Your task to perform on an android device: set an alarm Image 0: 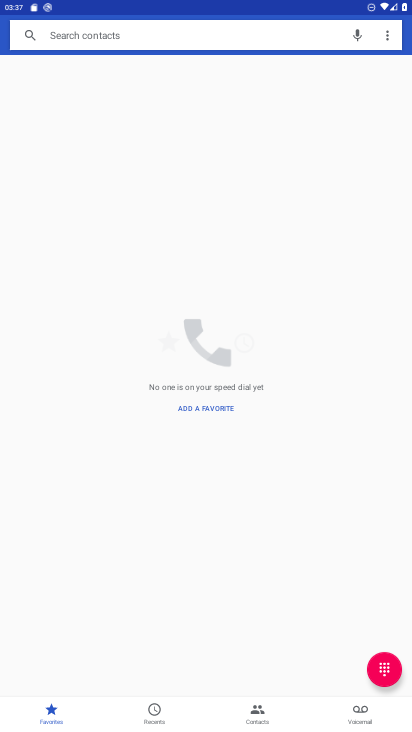
Step 0: press home button
Your task to perform on an android device: set an alarm Image 1: 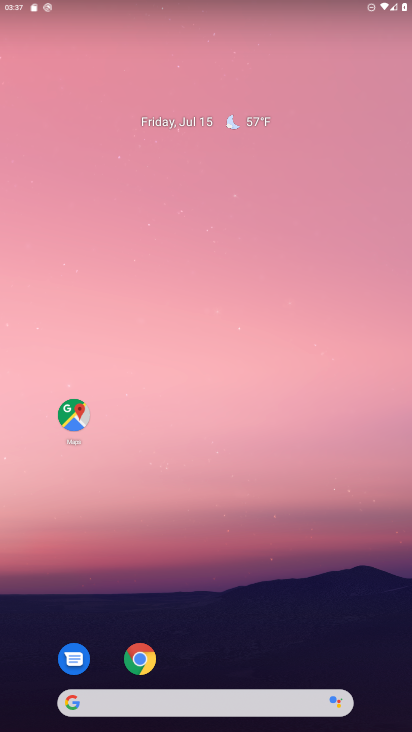
Step 1: drag from (233, 680) to (216, 21)
Your task to perform on an android device: set an alarm Image 2: 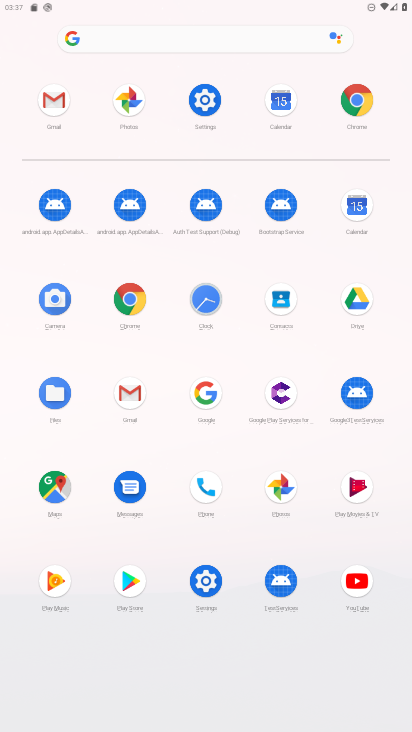
Step 2: click (207, 307)
Your task to perform on an android device: set an alarm Image 3: 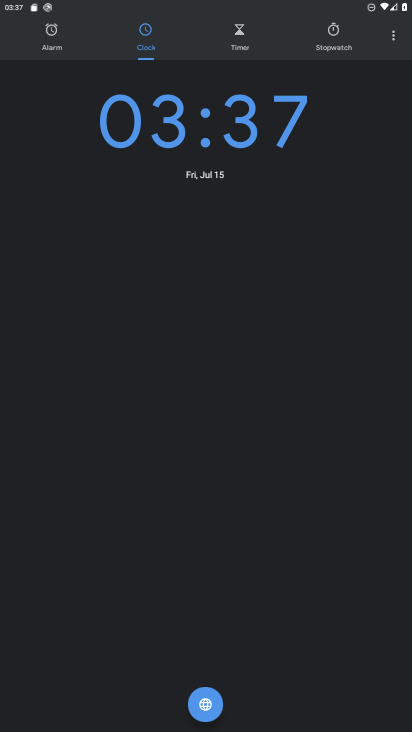
Step 3: click (64, 40)
Your task to perform on an android device: set an alarm Image 4: 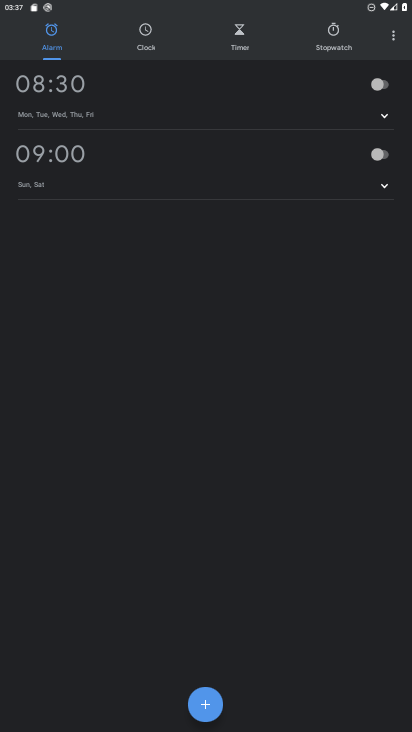
Step 4: click (401, 154)
Your task to perform on an android device: set an alarm Image 5: 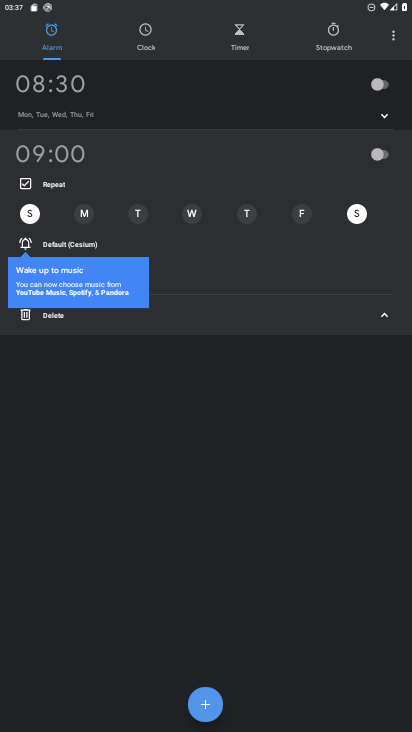
Step 5: click (131, 216)
Your task to perform on an android device: set an alarm Image 6: 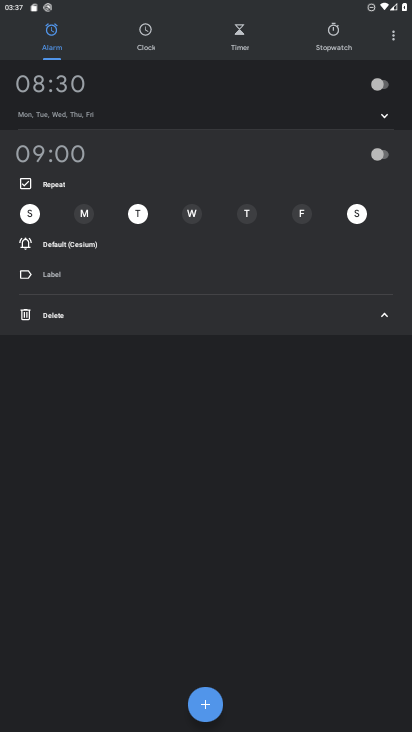
Step 6: click (198, 216)
Your task to perform on an android device: set an alarm Image 7: 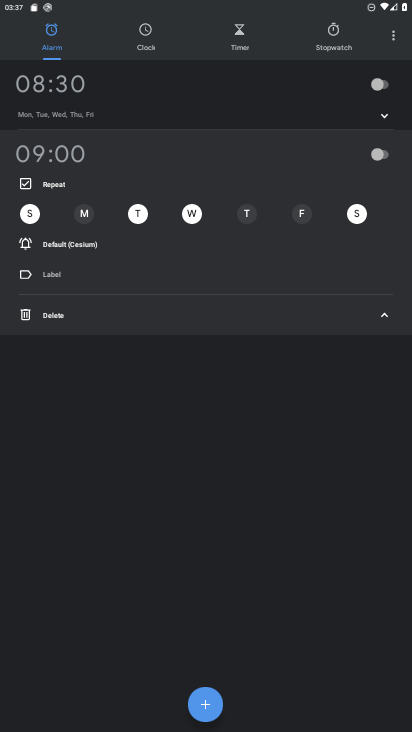
Step 7: click (374, 154)
Your task to perform on an android device: set an alarm Image 8: 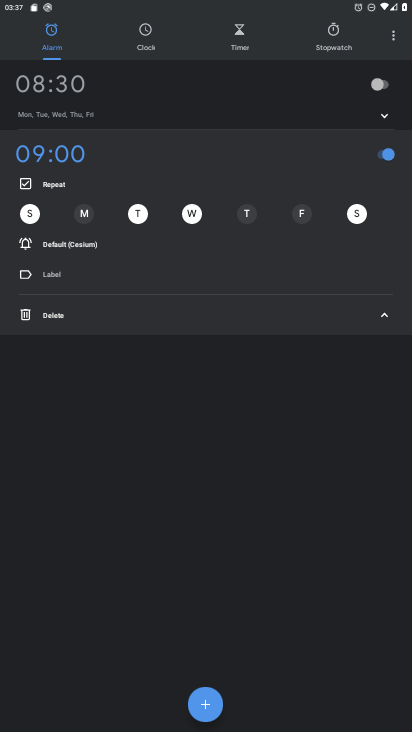
Step 8: task complete